Your task to perform on an android device: Open Google Maps Image 0: 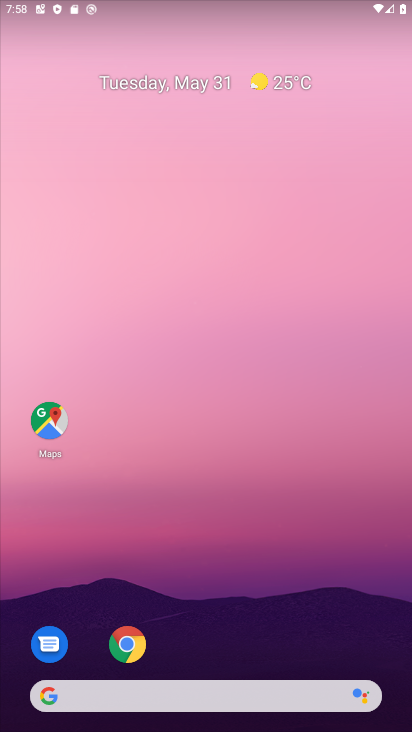
Step 0: drag from (211, 711) to (259, 273)
Your task to perform on an android device: Open Google Maps Image 1: 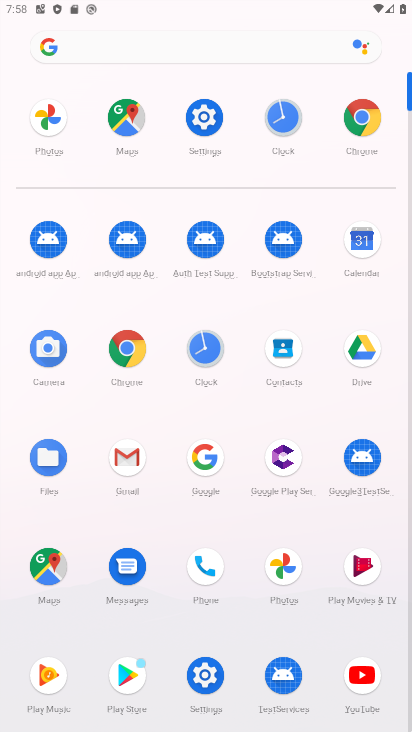
Step 1: click (120, 117)
Your task to perform on an android device: Open Google Maps Image 2: 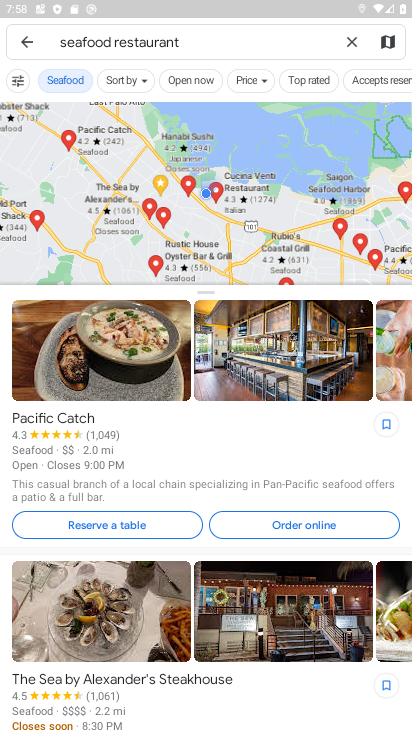
Step 2: click (31, 44)
Your task to perform on an android device: Open Google Maps Image 3: 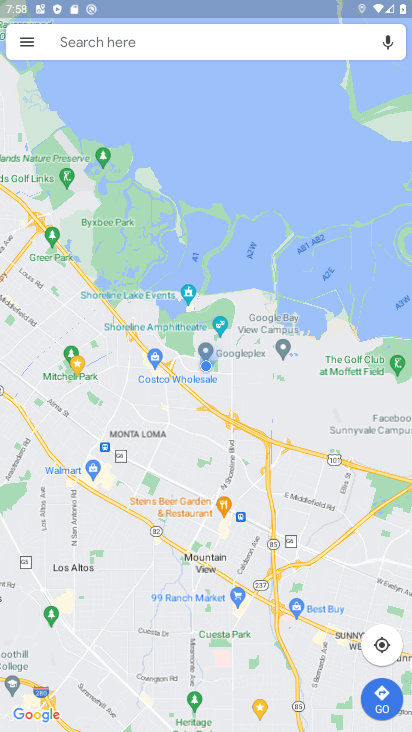
Step 3: task complete